Your task to perform on an android device: Go to display settings Image 0: 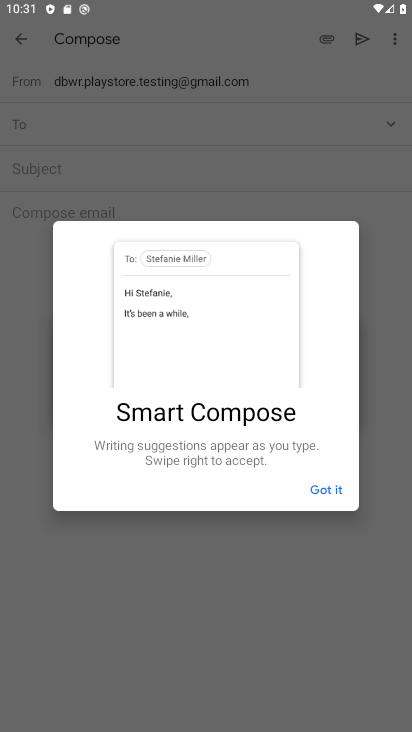
Step 0: press home button
Your task to perform on an android device: Go to display settings Image 1: 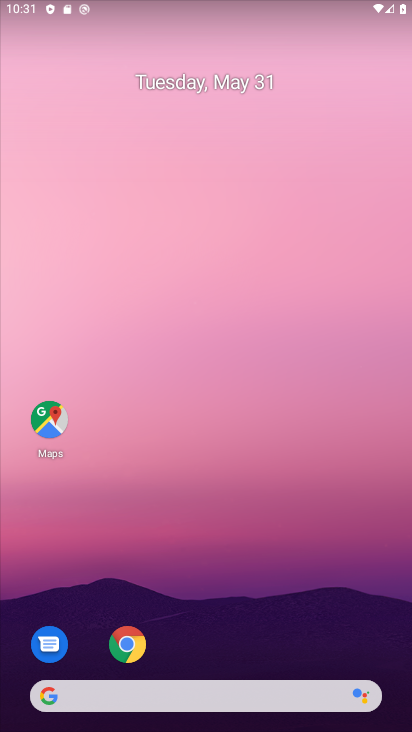
Step 1: drag from (259, 530) to (373, 0)
Your task to perform on an android device: Go to display settings Image 2: 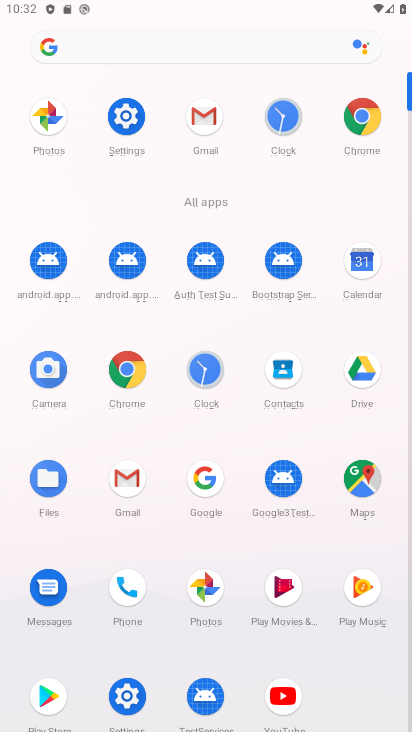
Step 2: click (134, 123)
Your task to perform on an android device: Go to display settings Image 3: 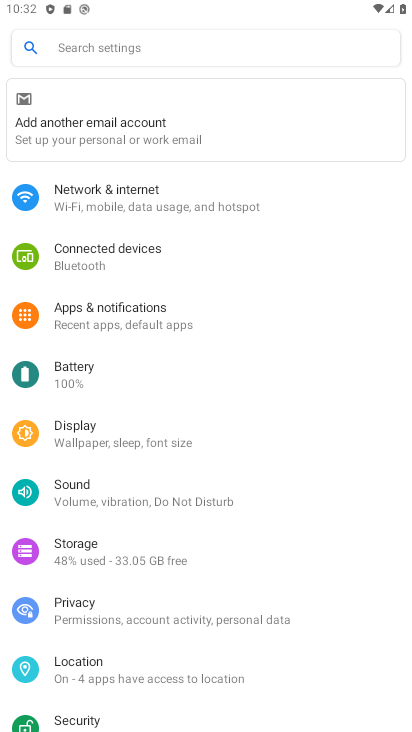
Step 3: drag from (100, 621) to (129, 223)
Your task to perform on an android device: Go to display settings Image 4: 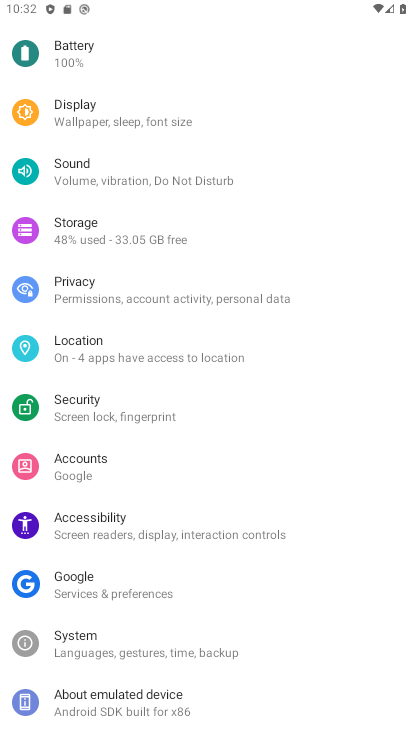
Step 4: drag from (156, 115) to (170, 712)
Your task to perform on an android device: Go to display settings Image 5: 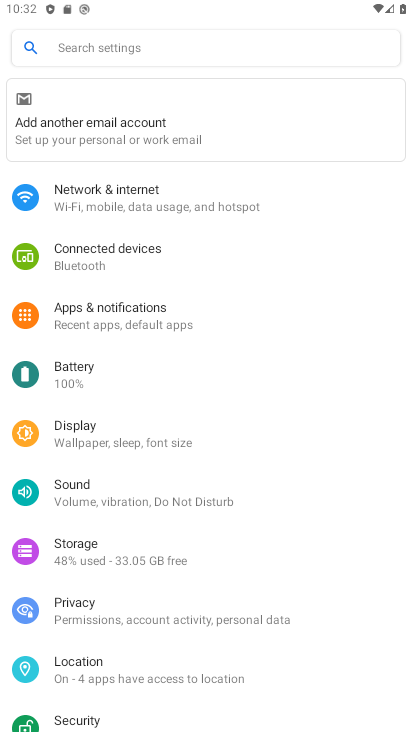
Step 5: click (118, 438)
Your task to perform on an android device: Go to display settings Image 6: 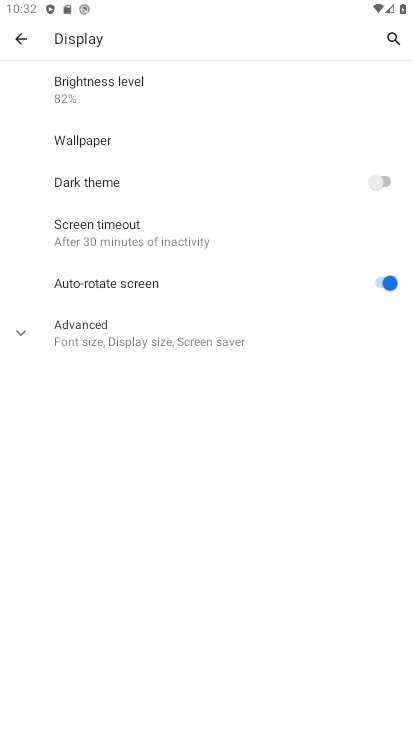
Step 6: task complete